Your task to perform on an android device: toggle translation in the chrome app Image 0: 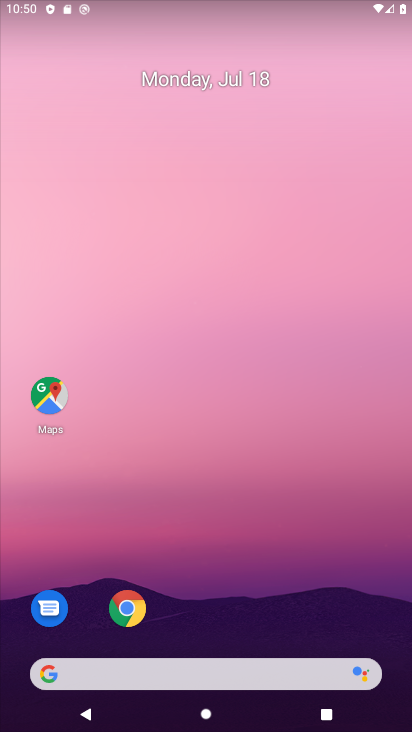
Step 0: drag from (221, 697) to (271, 204)
Your task to perform on an android device: toggle translation in the chrome app Image 1: 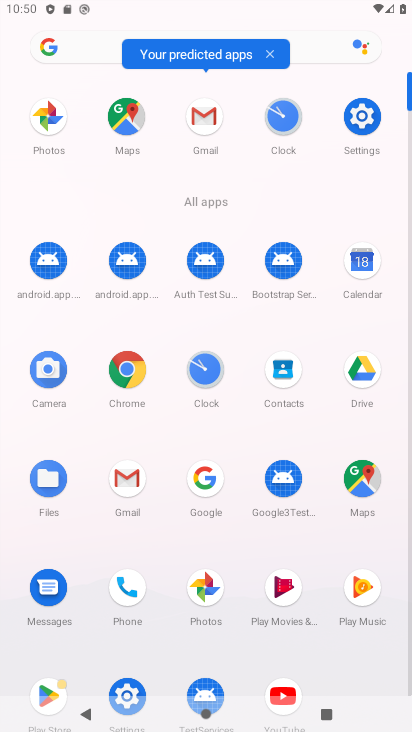
Step 1: click (128, 378)
Your task to perform on an android device: toggle translation in the chrome app Image 2: 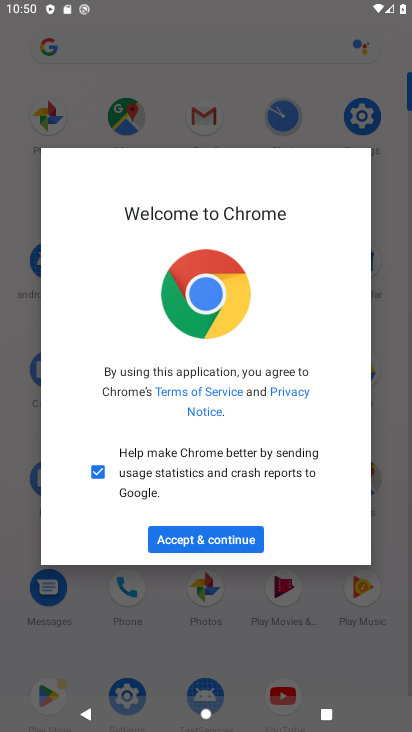
Step 2: click (248, 538)
Your task to perform on an android device: toggle translation in the chrome app Image 3: 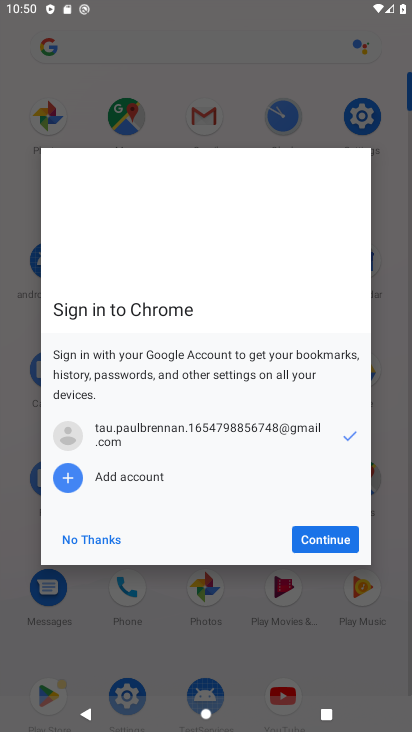
Step 3: click (311, 546)
Your task to perform on an android device: toggle translation in the chrome app Image 4: 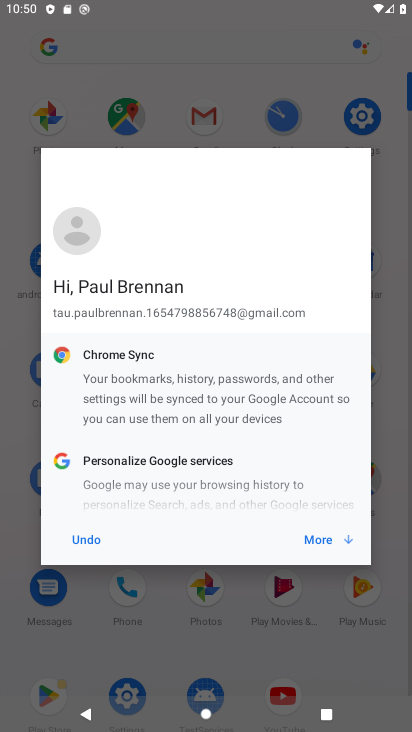
Step 4: click (345, 533)
Your task to perform on an android device: toggle translation in the chrome app Image 5: 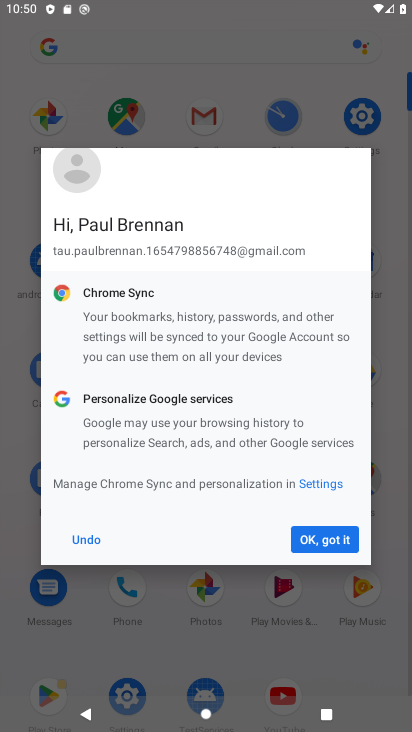
Step 5: click (346, 533)
Your task to perform on an android device: toggle translation in the chrome app Image 6: 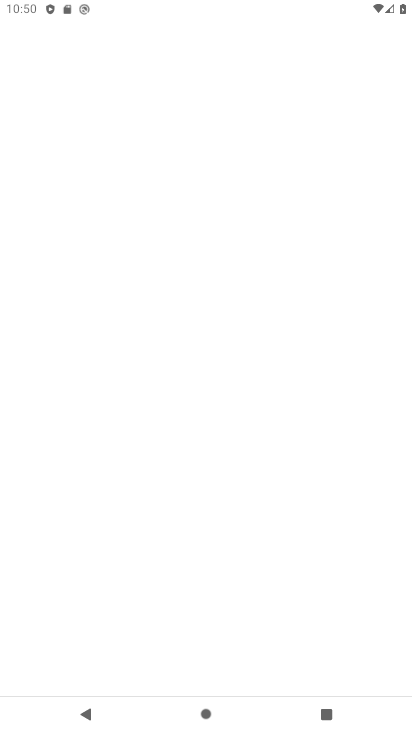
Step 6: click (341, 544)
Your task to perform on an android device: toggle translation in the chrome app Image 7: 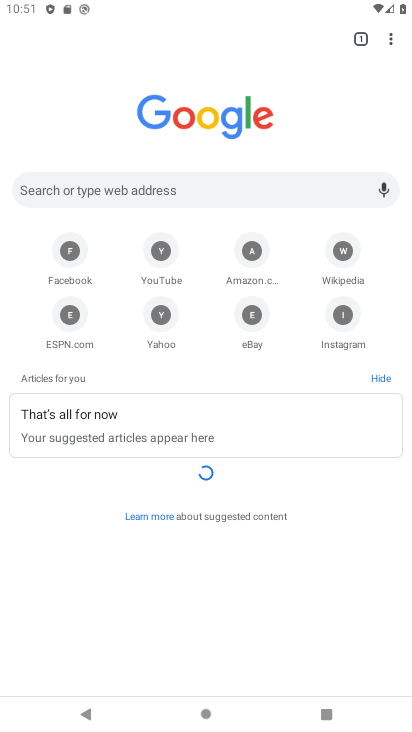
Step 7: drag from (398, 46) to (314, 319)
Your task to perform on an android device: toggle translation in the chrome app Image 8: 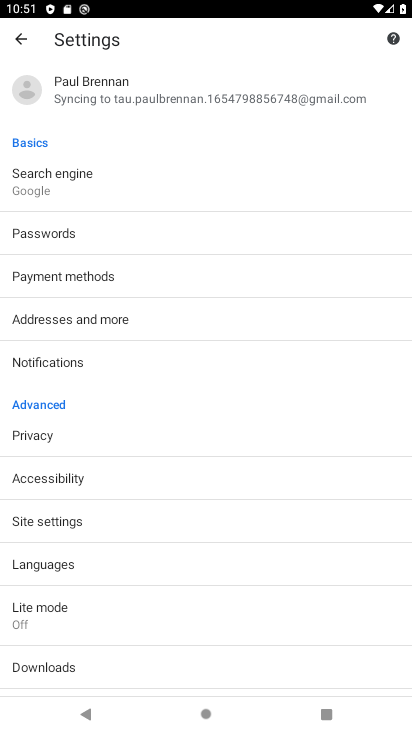
Step 8: drag from (106, 588) to (144, 344)
Your task to perform on an android device: toggle translation in the chrome app Image 9: 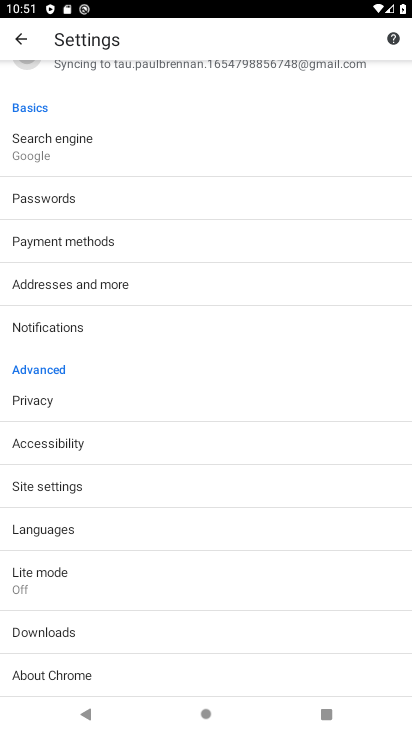
Step 9: click (75, 531)
Your task to perform on an android device: toggle translation in the chrome app Image 10: 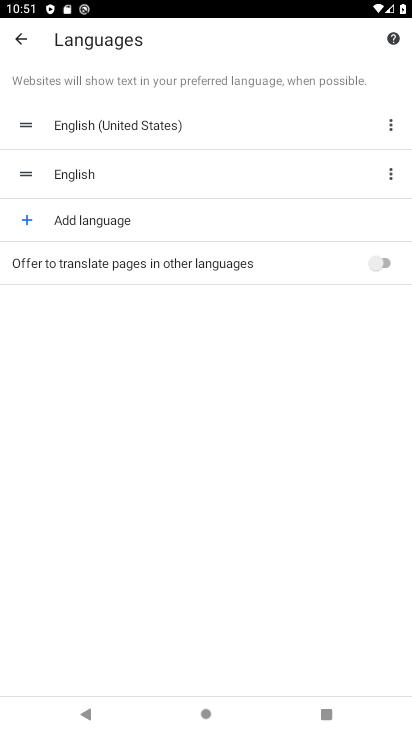
Step 10: click (390, 261)
Your task to perform on an android device: toggle translation in the chrome app Image 11: 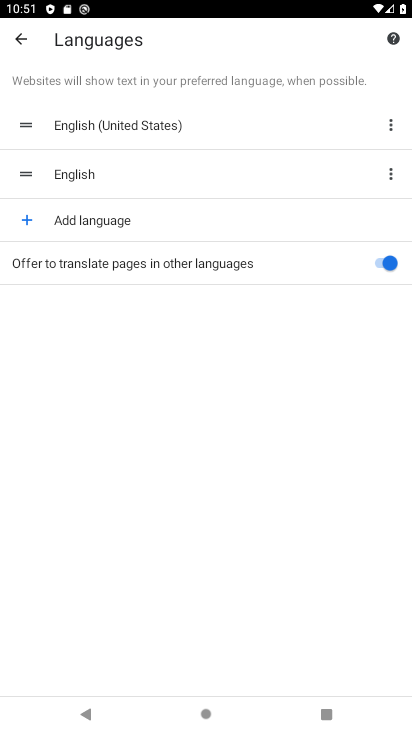
Step 11: task complete